Your task to perform on an android device: Open eBay Image 0: 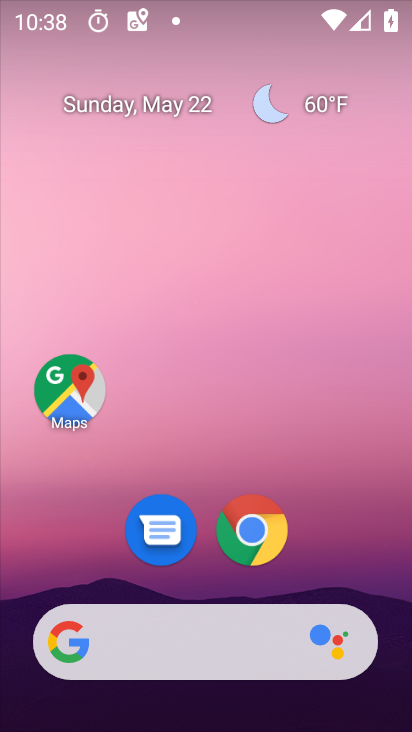
Step 0: drag from (370, 586) to (352, 98)
Your task to perform on an android device: Open eBay Image 1: 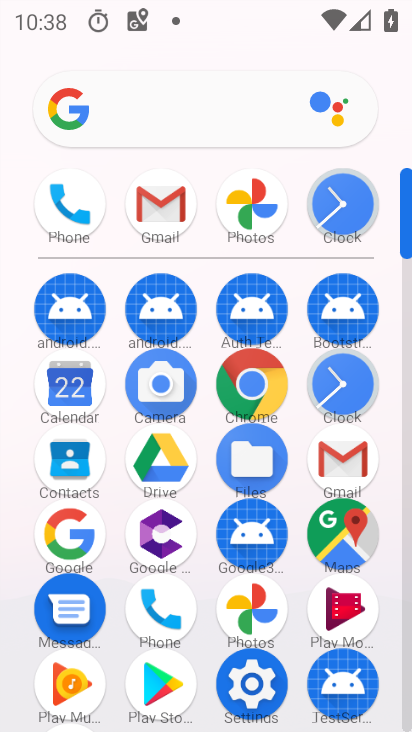
Step 1: click (239, 380)
Your task to perform on an android device: Open eBay Image 2: 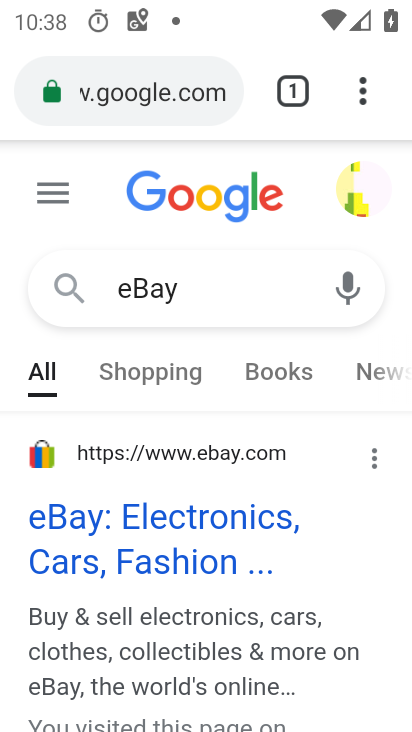
Step 2: click (157, 91)
Your task to perform on an android device: Open eBay Image 3: 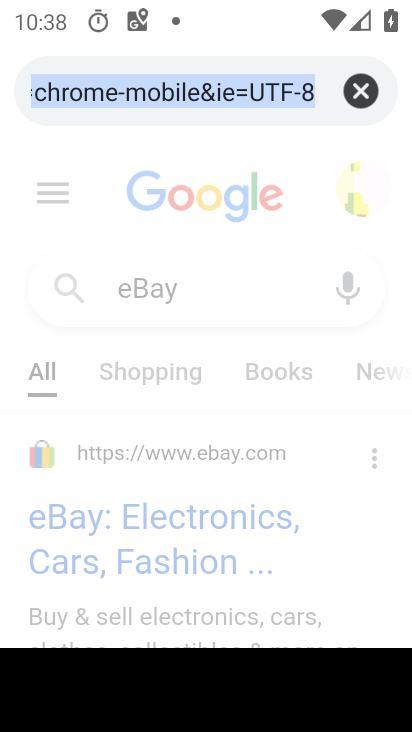
Step 3: click (354, 96)
Your task to perform on an android device: Open eBay Image 4: 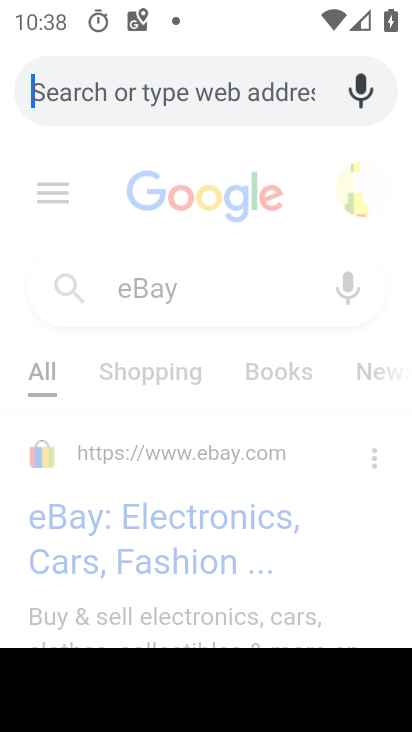
Step 4: type "eBay"
Your task to perform on an android device: Open eBay Image 5: 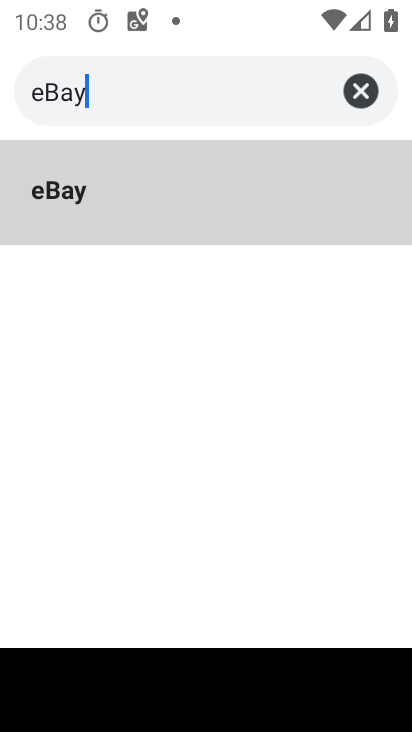
Step 5: click (154, 186)
Your task to perform on an android device: Open eBay Image 6: 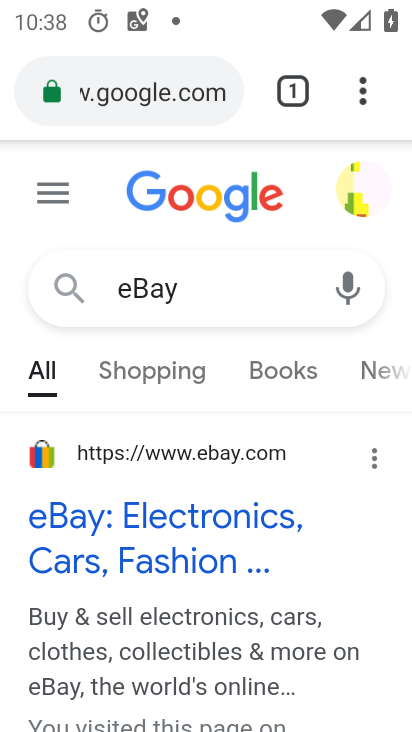
Step 6: task complete